Your task to perform on an android device: open a bookmark in the chrome app Image 0: 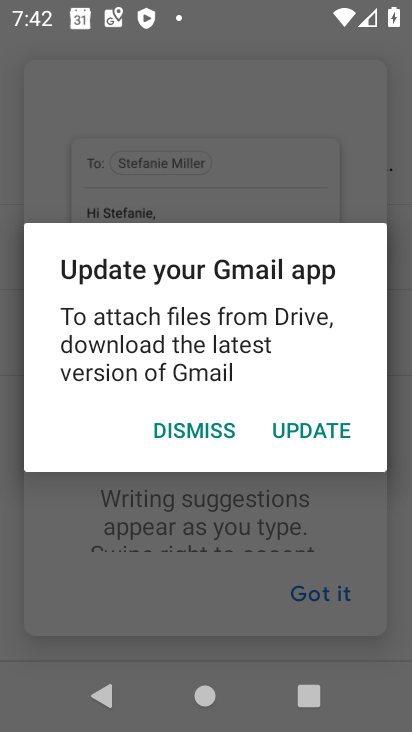
Step 0: press home button
Your task to perform on an android device: open a bookmark in the chrome app Image 1: 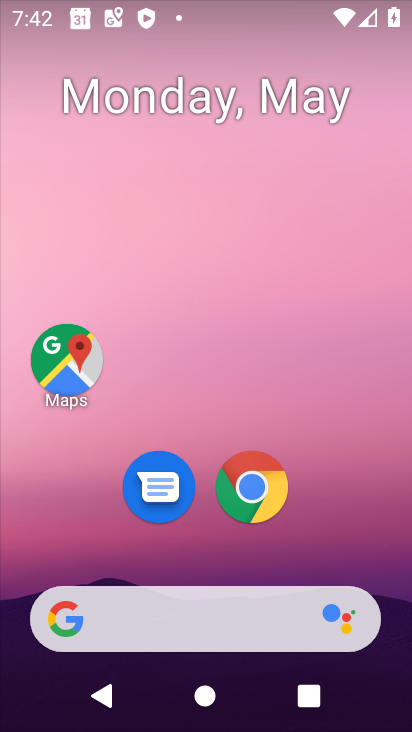
Step 1: drag from (209, 640) to (221, 17)
Your task to perform on an android device: open a bookmark in the chrome app Image 2: 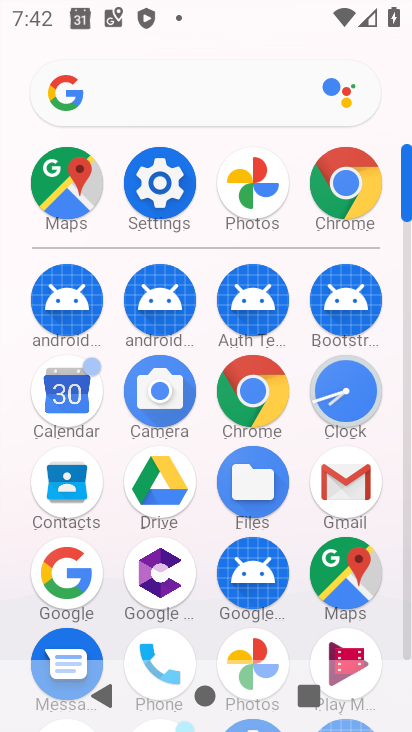
Step 2: click (352, 211)
Your task to perform on an android device: open a bookmark in the chrome app Image 3: 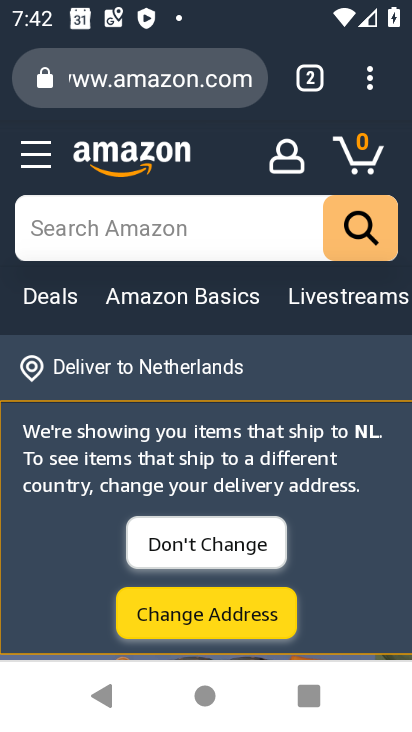
Step 3: click (363, 87)
Your task to perform on an android device: open a bookmark in the chrome app Image 4: 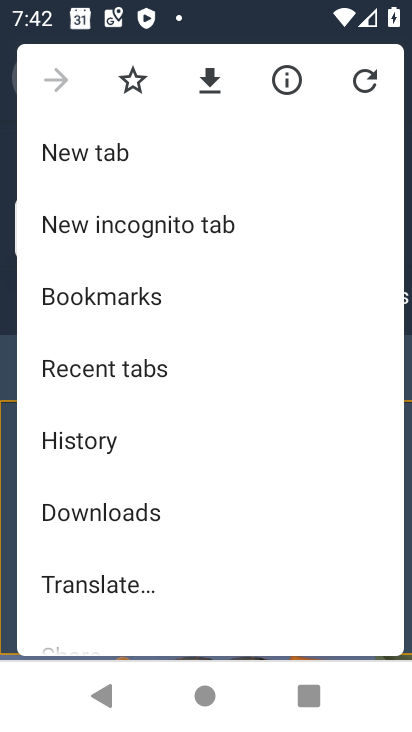
Step 4: click (121, 296)
Your task to perform on an android device: open a bookmark in the chrome app Image 5: 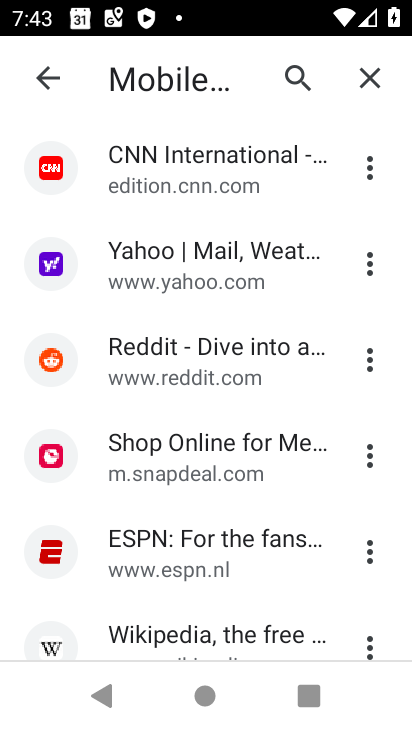
Step 5: click (161, 264)
Your task to perform on an android device: open a bookmark in the chrome app Image 6: 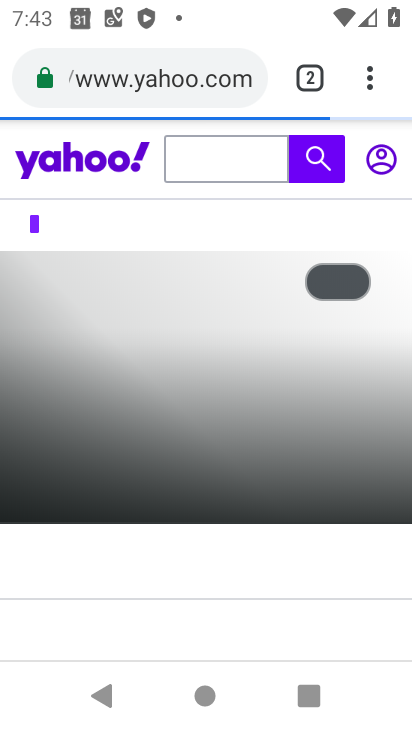
Step 6: task complete